Your task to perform on an android device: turn off location Image 0: 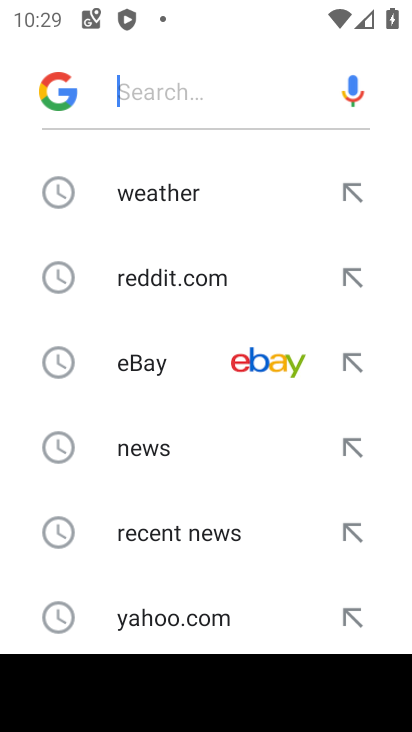
Step 0: press back button
Your task to perform on an android device: turn off location Image 1: 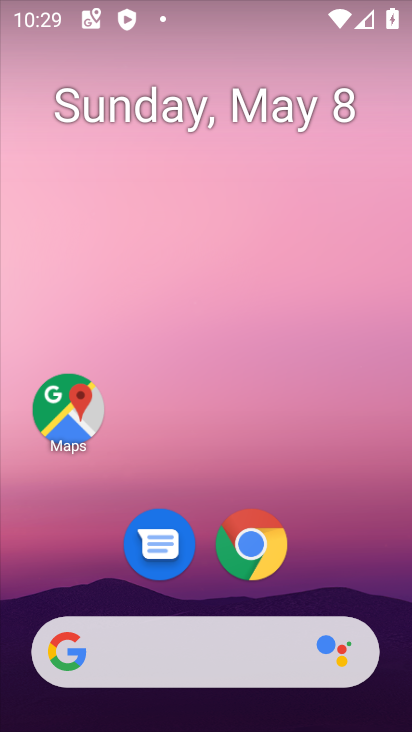
Step 1: drag from (358, 583) to (276, 104)
Your task to perform on an android device: turn off location Image 2: 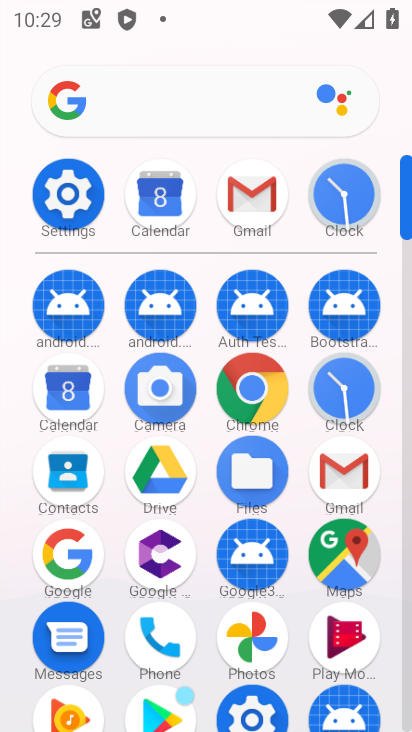
Step 2: click (248, 710)
Your task to perform on an android device: turn off location Image 3: 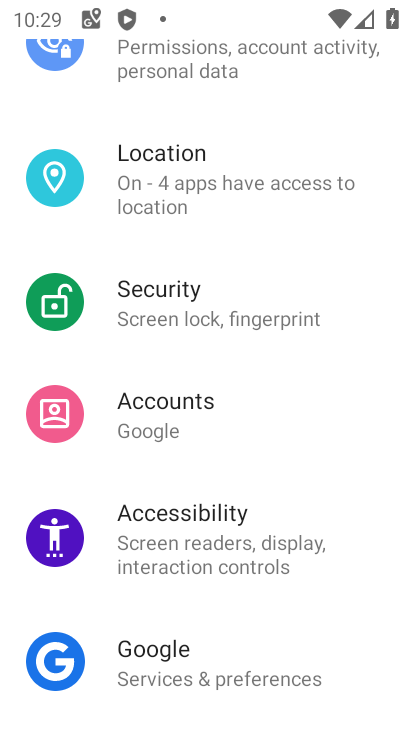
Step 3: click (216, 165)
Your task to perform on an android device: turn off location Image 4: 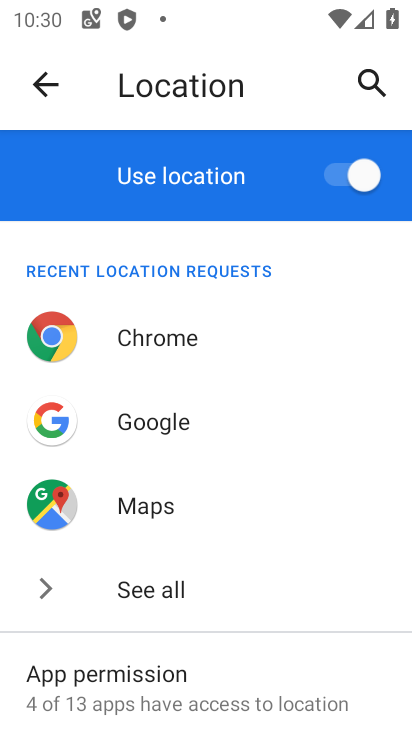
Step 4: click (338, 177)
Your task to perform on an android device: turn off location Image 5: 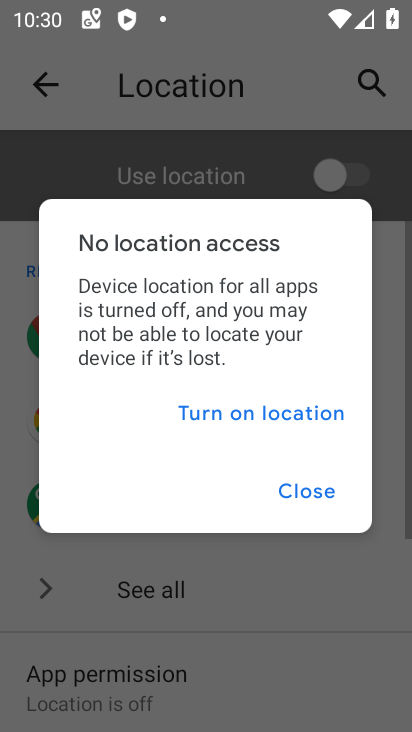
Step 5: task complete